Your task to perform on an android device: find photos in the google photos app Image 0: 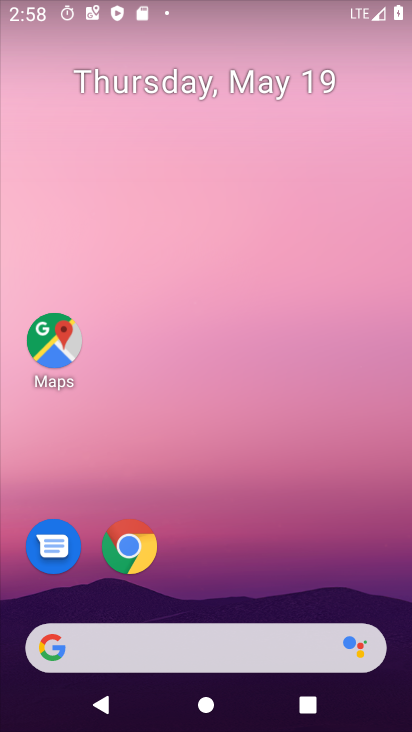
Step 0: drag from (161, 599) to (157, 133)
Your task to perform on an android device: find photos in the google photos app Image 1: 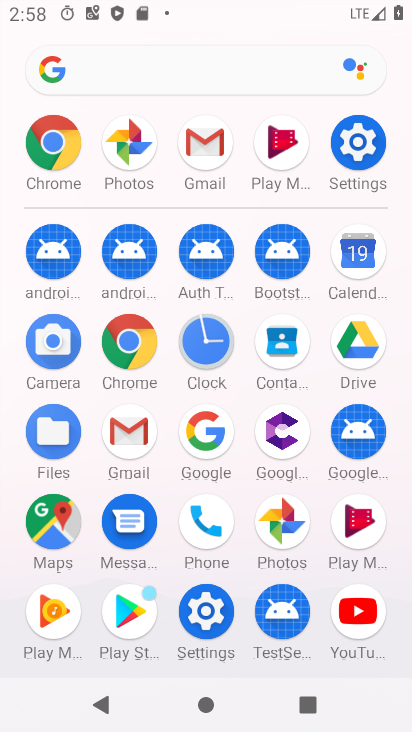
Step 1: click (128, 153)
Your task to perform on an android device: find photos in the google photos app Image 2: 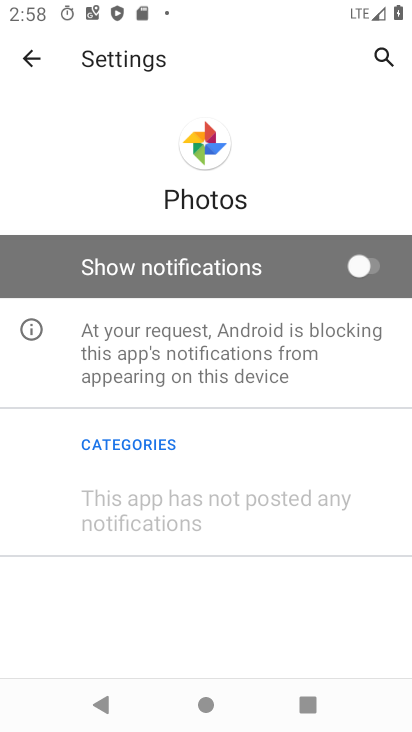
Step 2: click (44, 44)
Your task to perform on an android device: find photos in the google photos app Image 3: 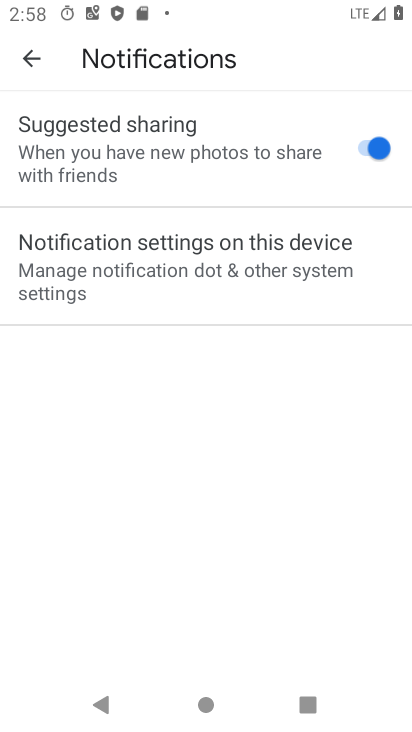
Step 3: click (44, 44)
Your task to perform on an android device: find photos in the google photos app Image 4: 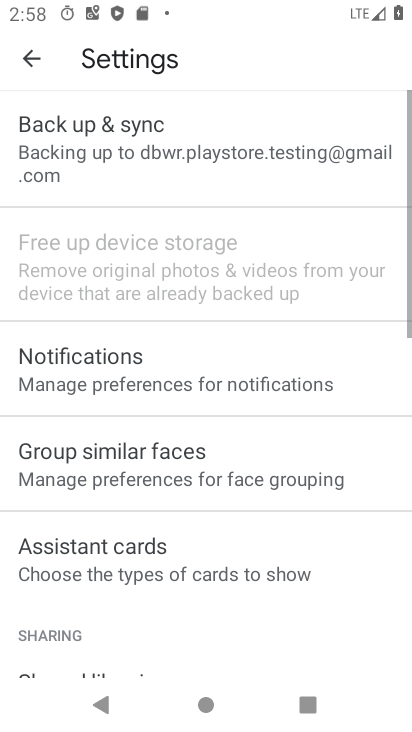
Step 4: click (44, 44)
Your task to perform on an android device: find photos in the google photos app Image 5: 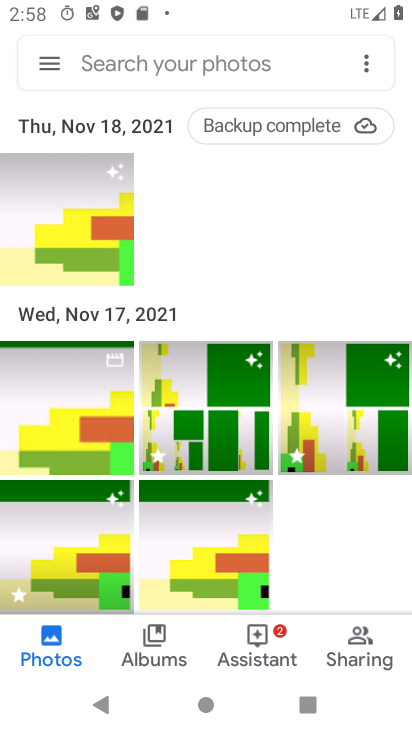
Step 5: task complete